Your task to perform on an android device: make emails show in primary in the gmail app Image 0: 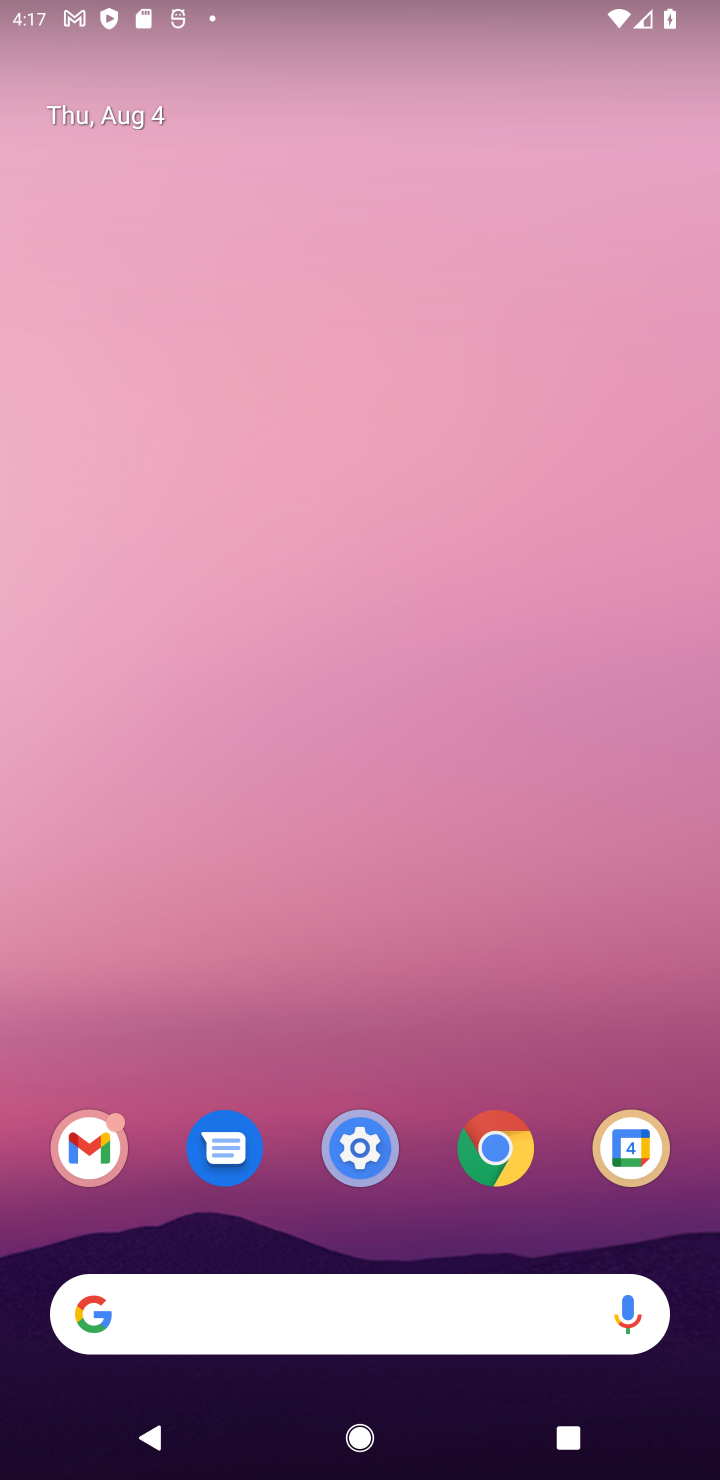
Step 0: drag from (549, 1235) to (513, 191)
Your task to perform on an android device: make emails show in primary in the gmail app Image 1: 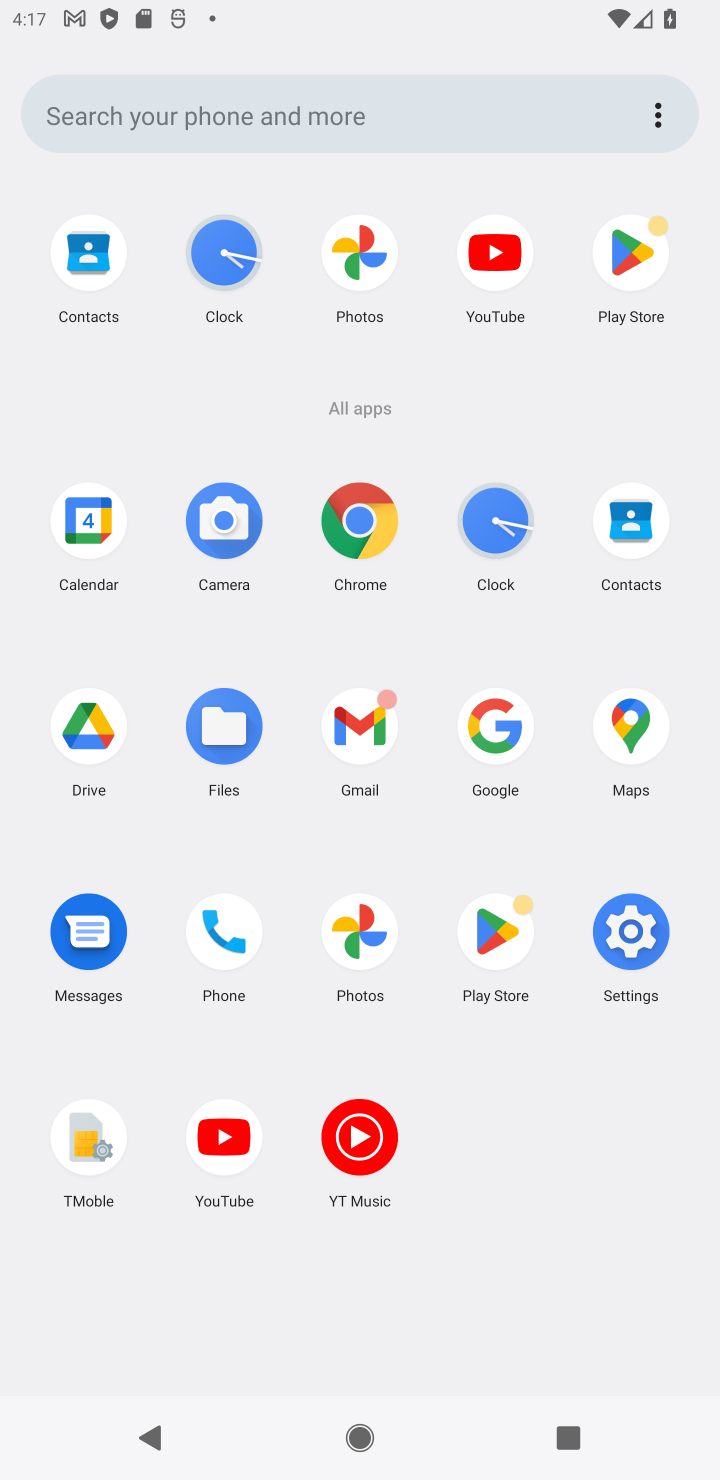
Step 1: click (352, 729)
Your task to perform on an android device: make emails show in primary in the gmail app Image 2: 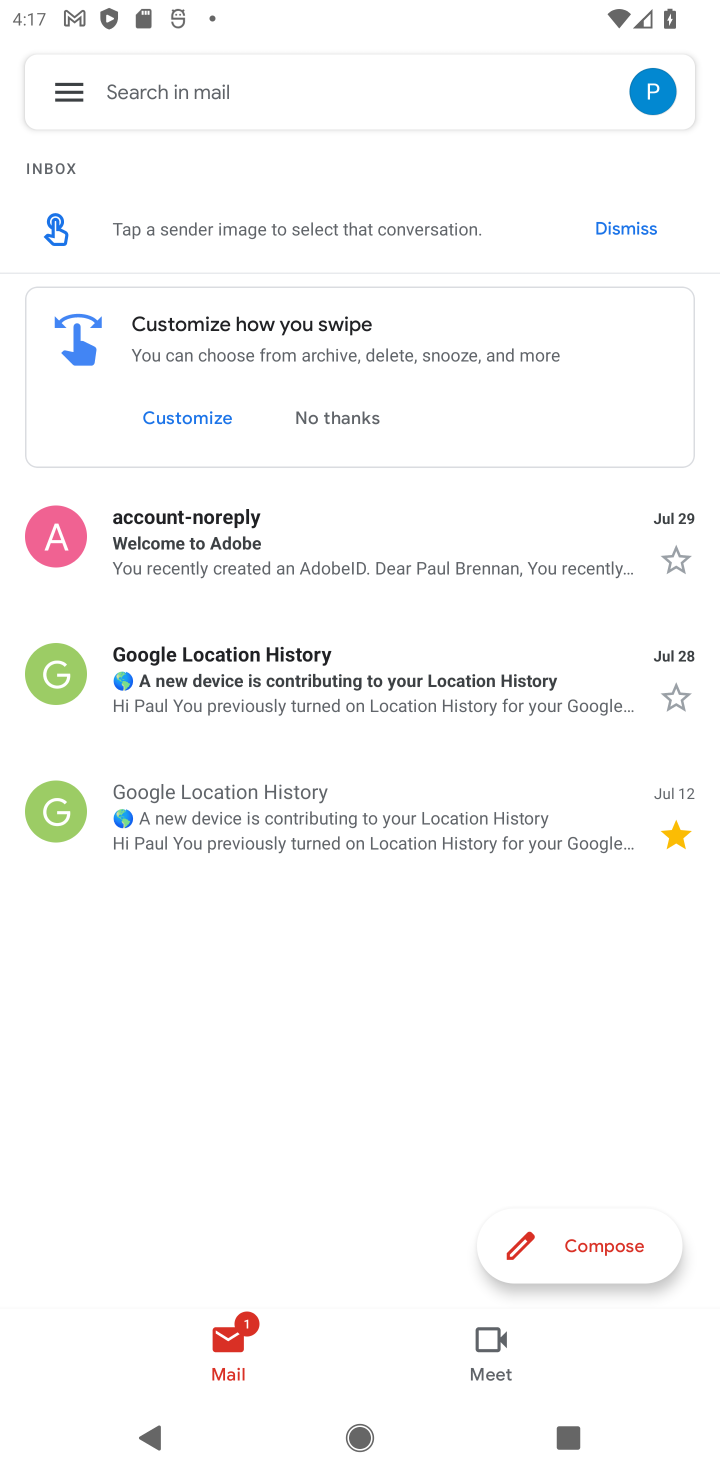
Step 2: click (68, 92)
Your task to perform on an android device: make emails show in primary in the gmail app Image 3: 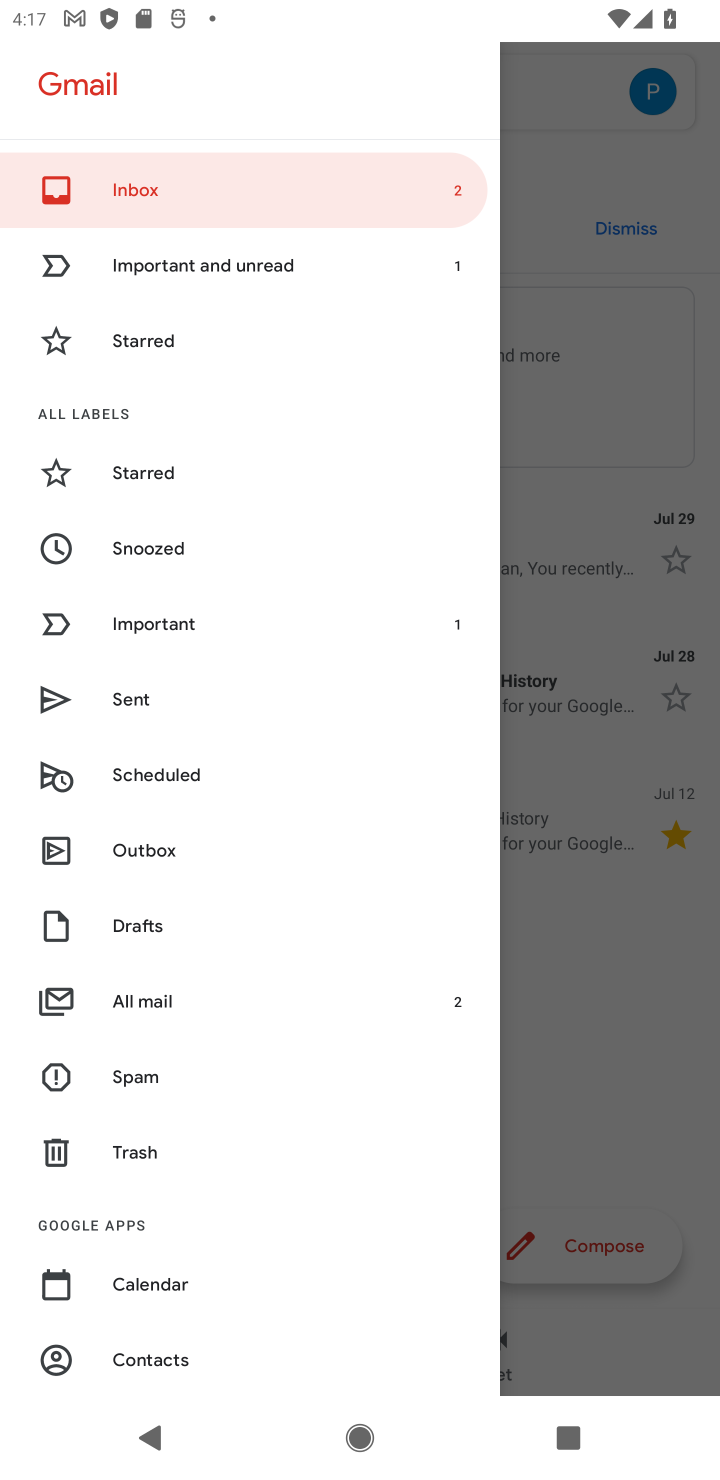
Step 3: drag from (325, 1316) to (331, 701)
Your task to perform on an android device: make emails show in primary in the gmail app Image 4: 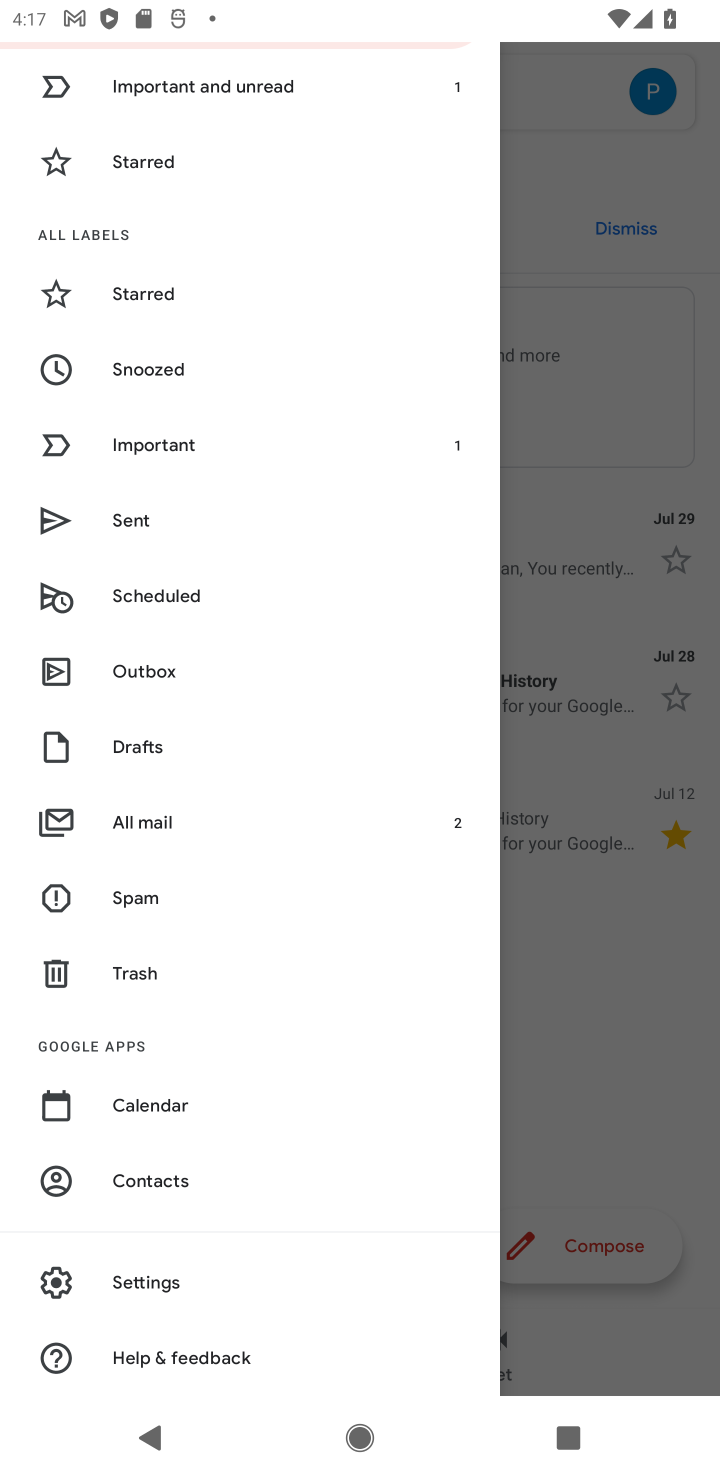
Step 4: click (132, 1274)
Your task to perform on an android device: make emails show in primary in the gmail app Image 5: 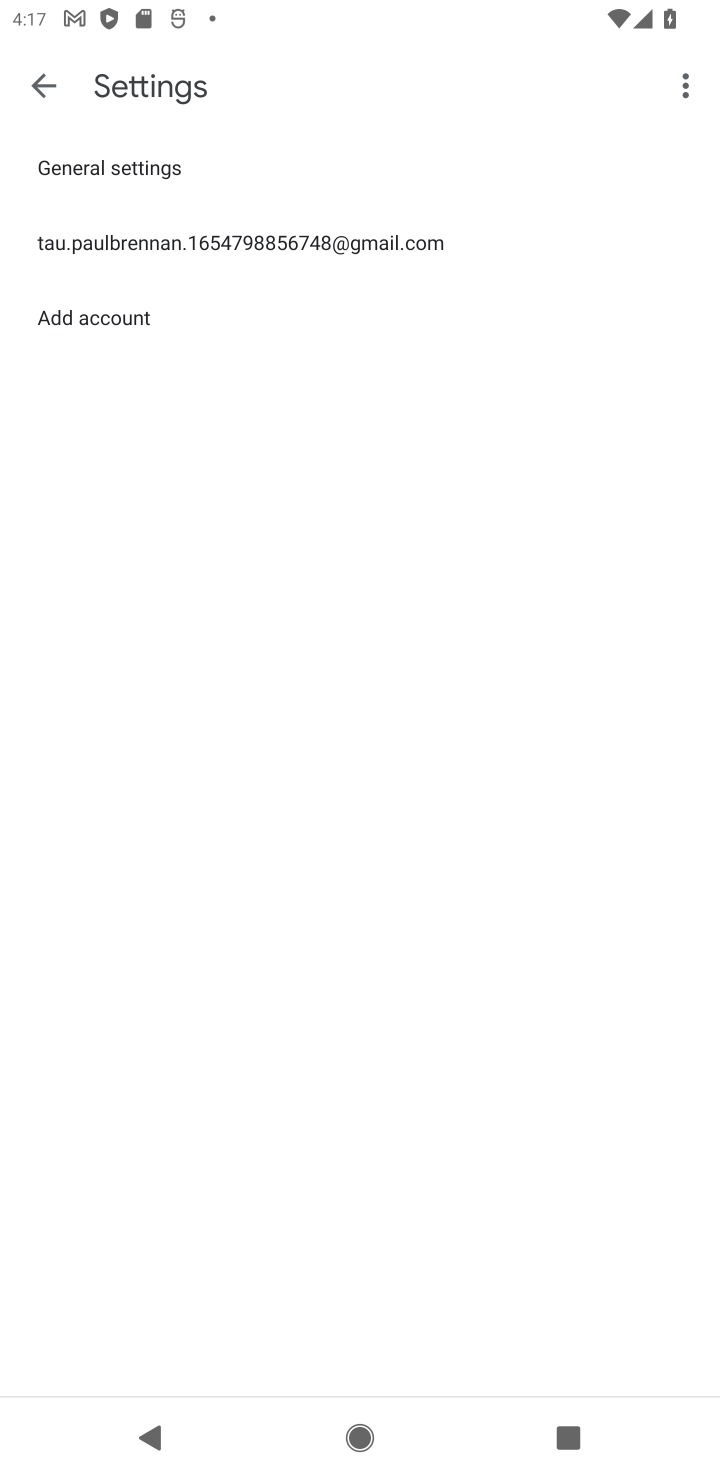
Step 5: click (263, 244)
Your task to perform on an android device: make emails show in primary in the gmail app Image 6: 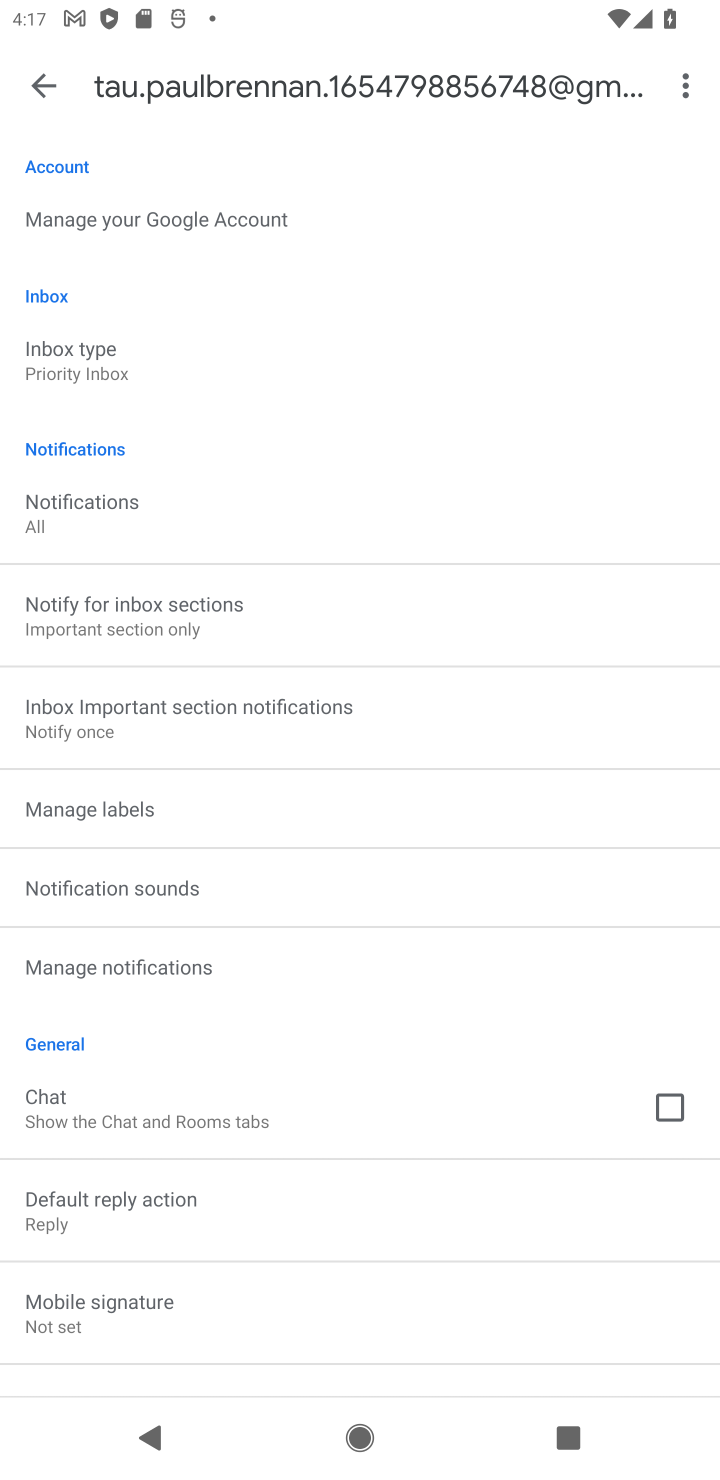
Step 6: click (80, 369)
Your task to perform on an android device: make emails show in primary in the gmail app Image 7: 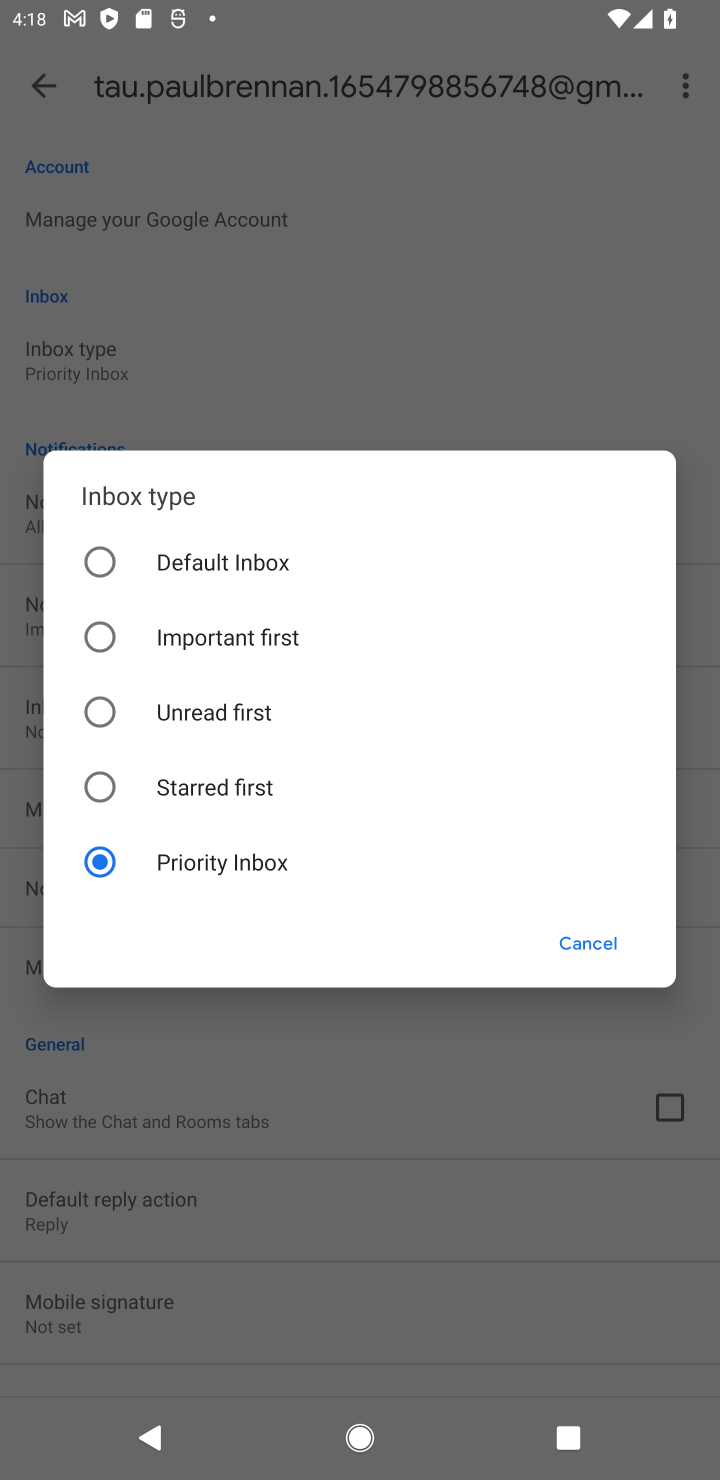
Step 7: click (95, 560)
Your task to perform on an android device: make emails show in primary in the gmail app Image 8: 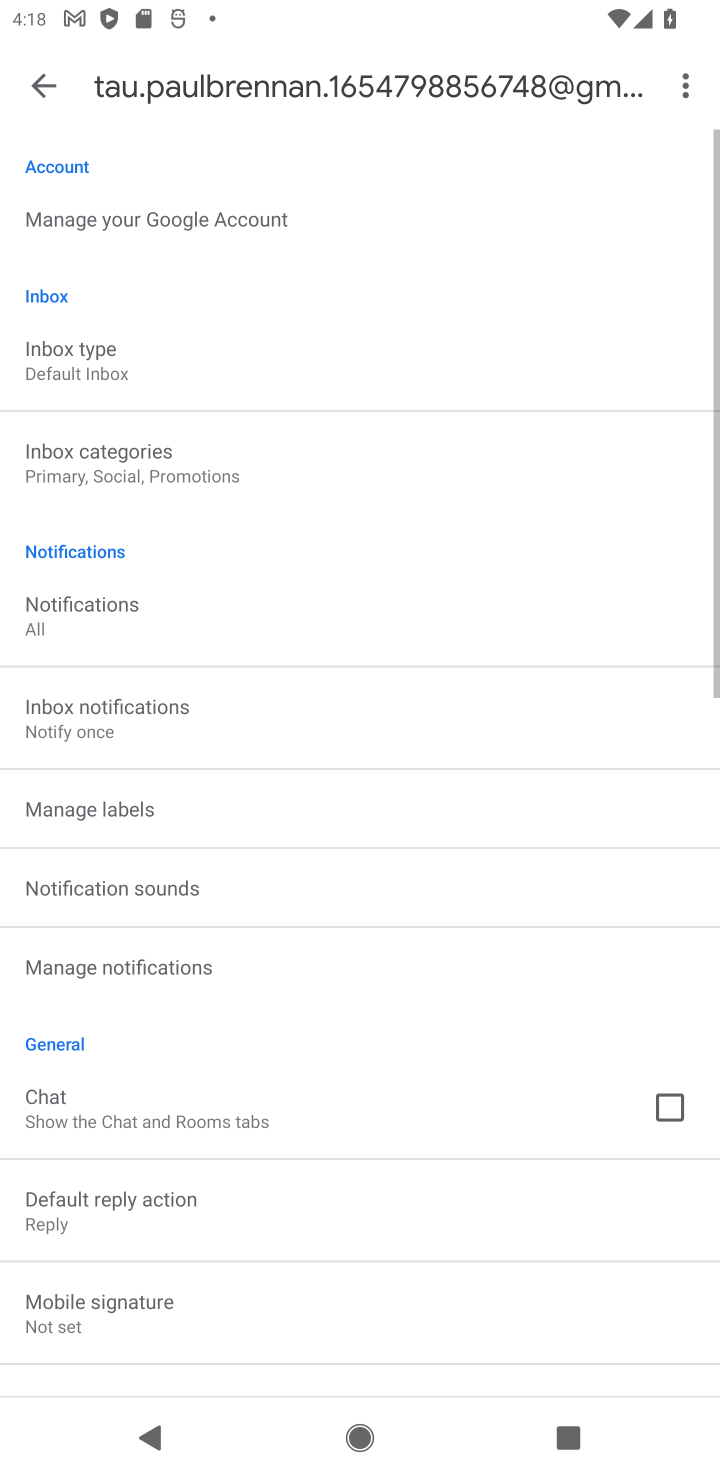
Step 8: click (127, 447)
Your task to perform on an android device: make emails show in primary in the gmail app Image 9: 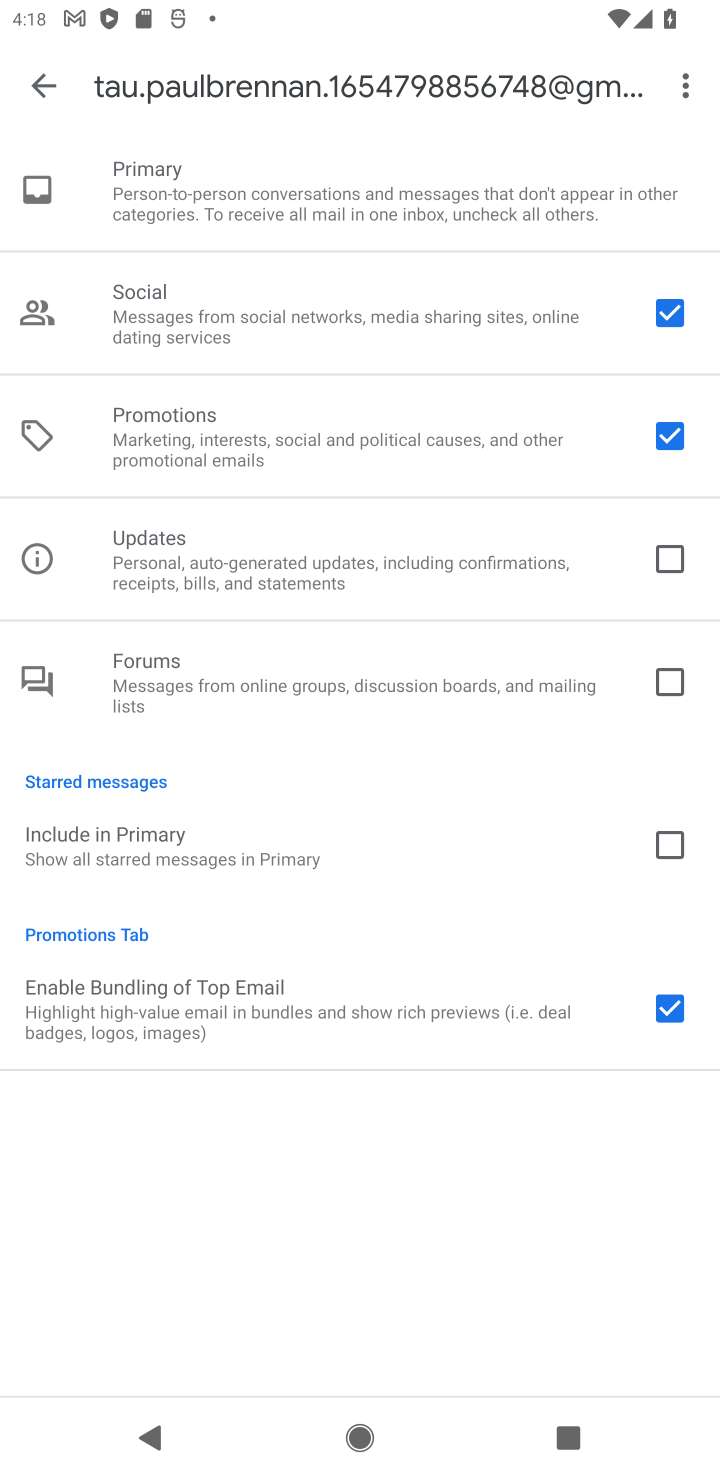
Step 9: click (667, 429)
Your task to perform on an android device: make emails show in primary in the gmail app Image 10: 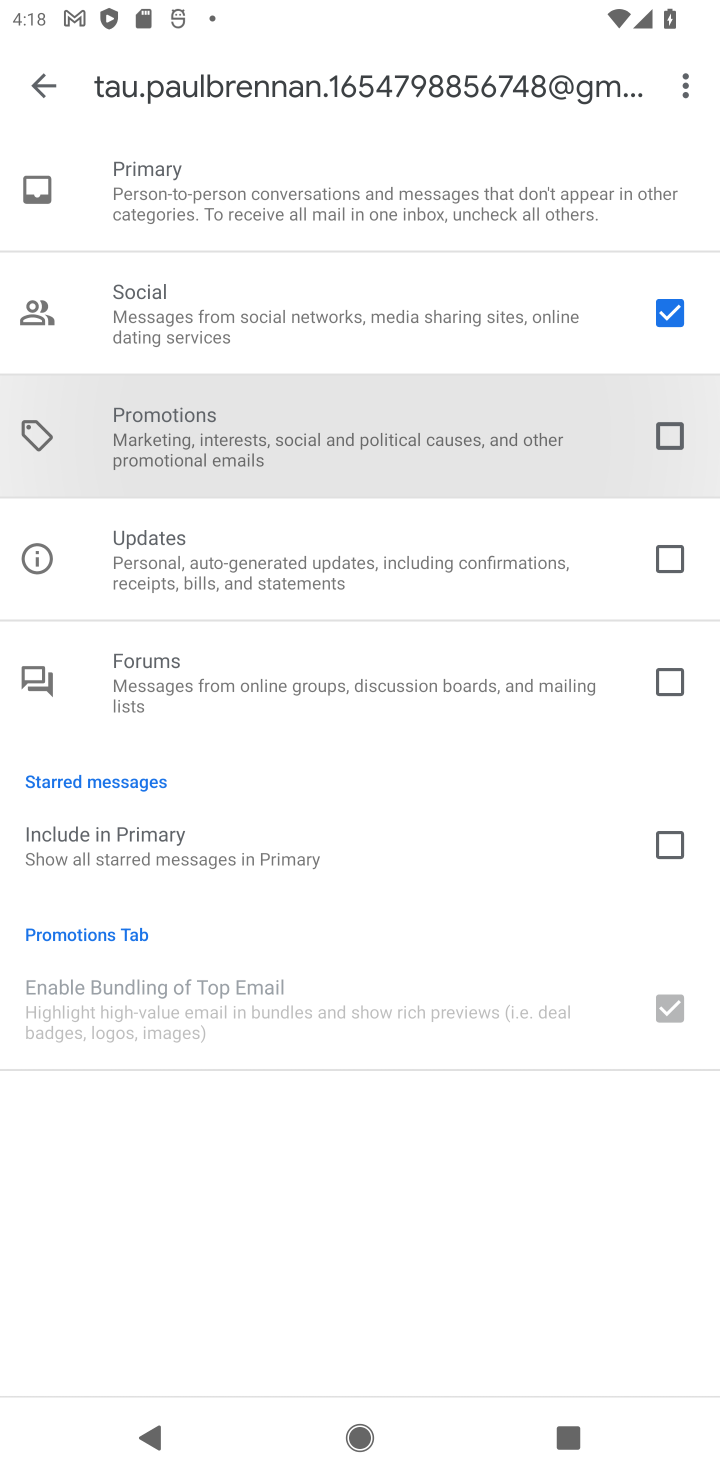
Step 10: click (665, 311)
Your task to perform on an android device: make emails show in primary in the gmail app Image 11: 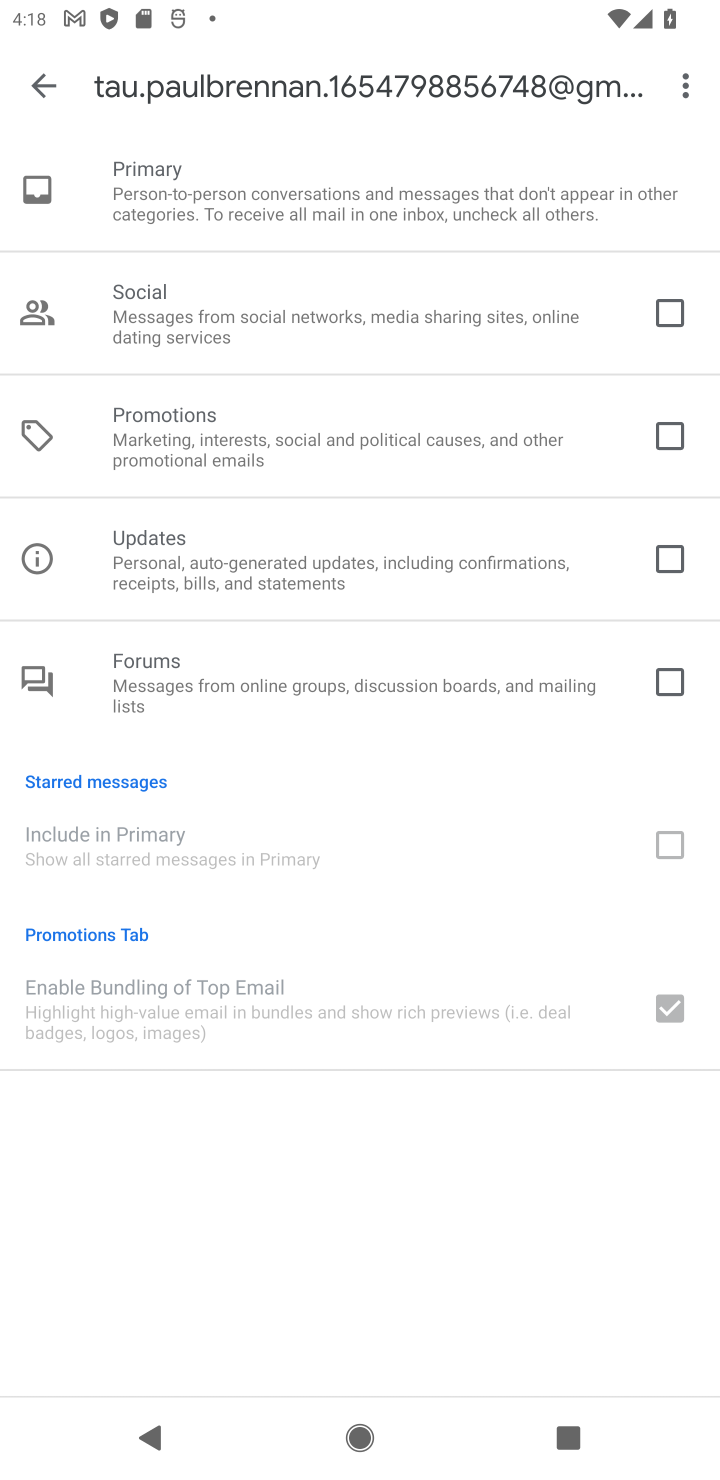
Step 11: task complete